Your task to perform on an android device: Open Google Image 0: 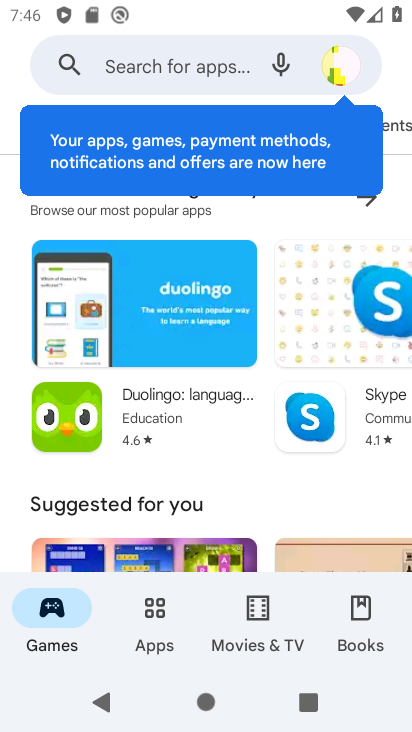
Step 0: press home button
Your task to perform on an android device: Open Google Image 1: 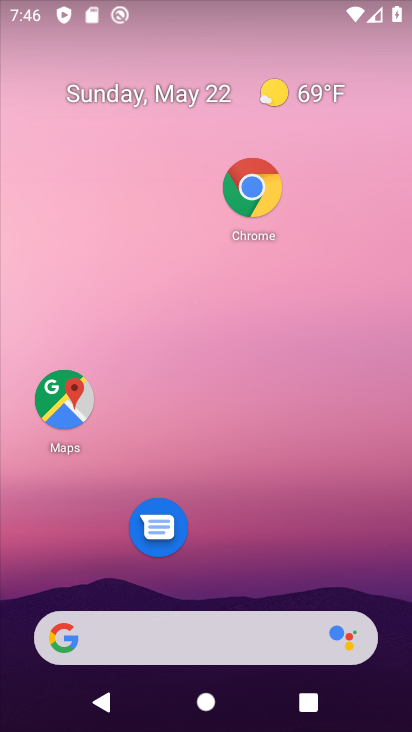
Step 1: drag from (228, 589) to (228, 63)
Your task to perform on an android device: Open Google Image 2: 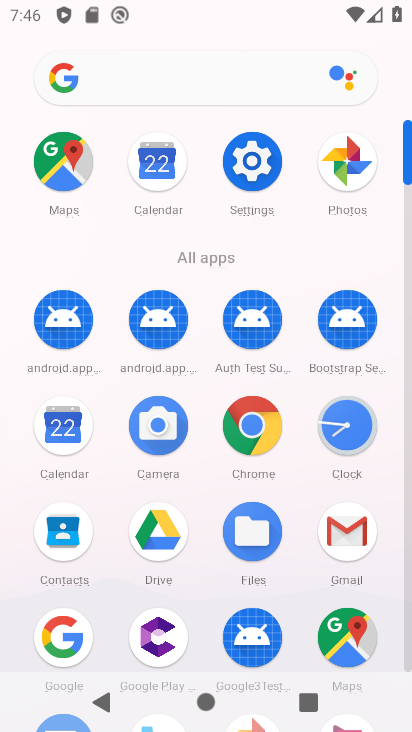
Step 2: click (66, 635)
Your task to perform on an android device: Open Google Image 3: 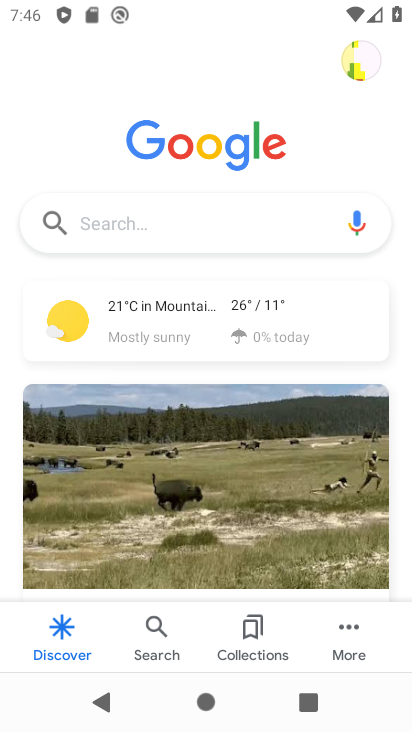
Step 3: task complete